Your task to perform on an android device: open a bookmark in the chrome app Image 0: 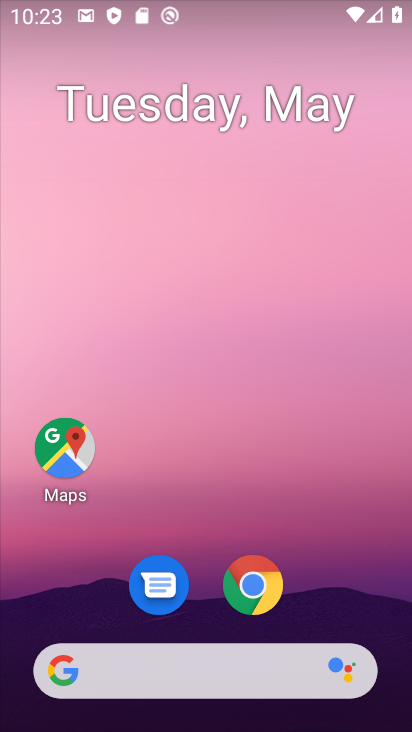
Step 0: click (277, 590)
Your task to perform on an android device: open a bookmark in the chrome app Image 1: 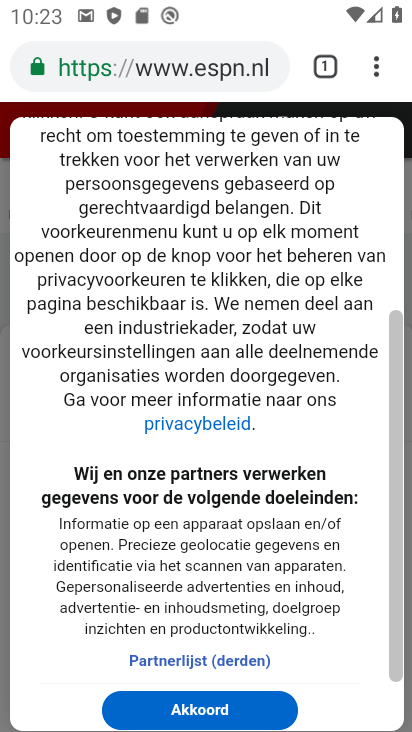
Step 1: click (377, 65)
Your task to perform on an android device: open a bookmark in the chrome app Image 2: 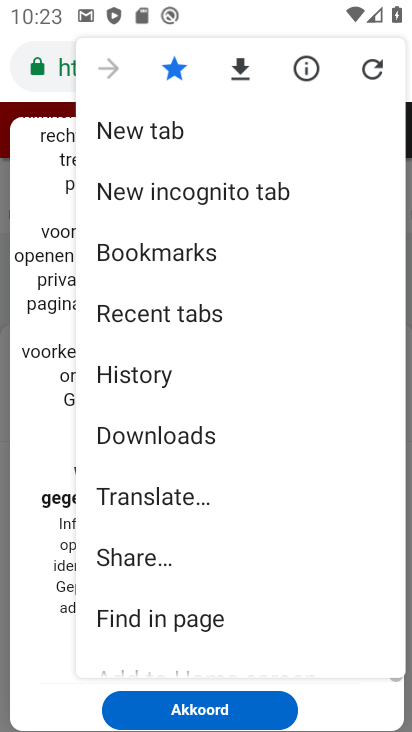
Step 2: click (229, 250)
Your task to perform on an android device: open a bookmark in the chrome app Image 3: 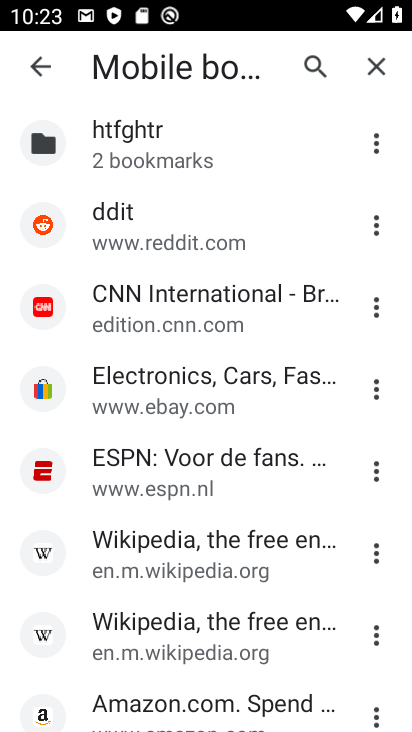
Step 3: click (225, 545)
Your task to perform on an android device: open a bookmark in the chrome app Image 4: 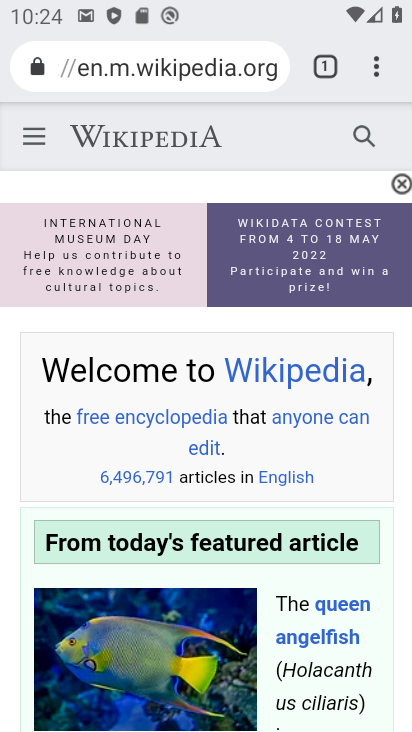
Step 4: task complete